Your task to perform on an android device: turn notification dots on Image 0: 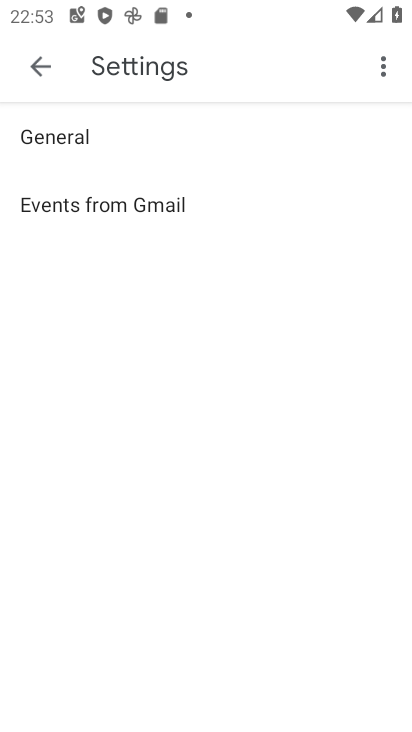
Step 0: click (221, 402)
Your task to perform on an android device: turn notification dots on Image 1: 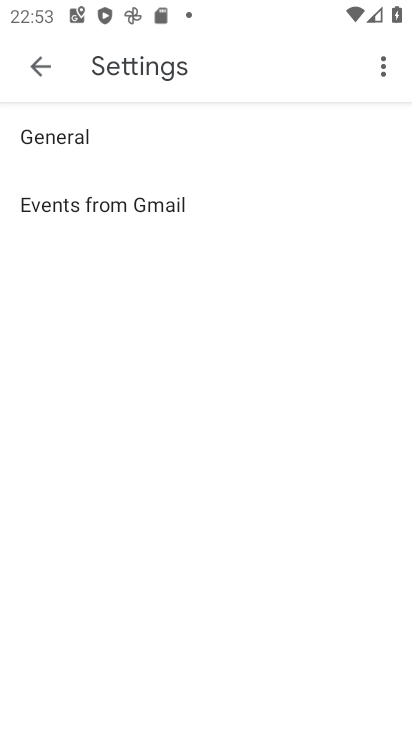
Step 1: press home button
Your task to perform on an android device: turn notification dots on Image 2: 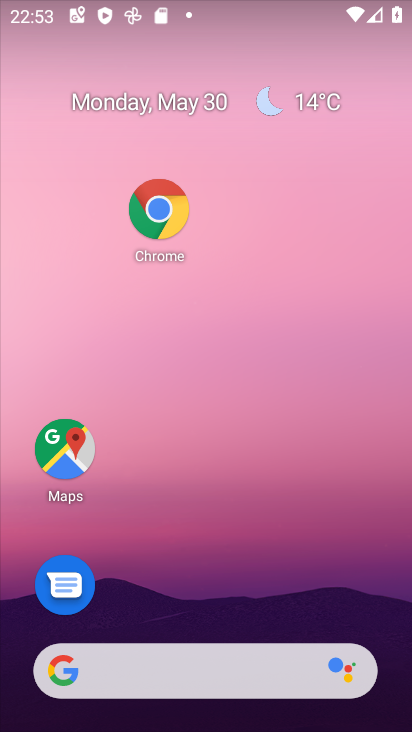
Step 2: drag from (228, 581) to (233, 40)
Your task to perform on an android device: turn notification dots on Image 3: 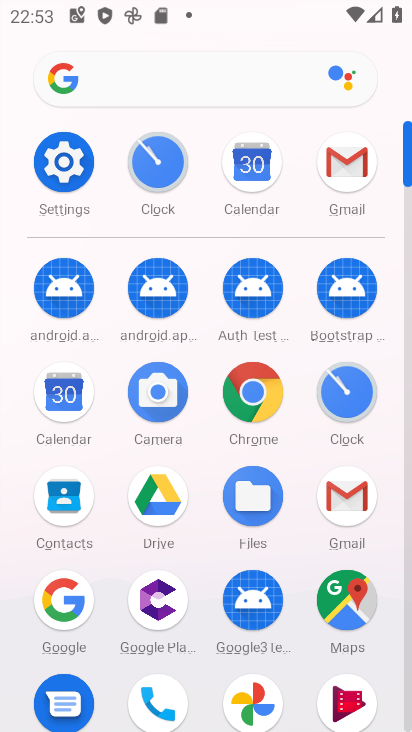
Step 3: click (48, 153)
Your task to perform on an android device: turn notification dots on Image 4: 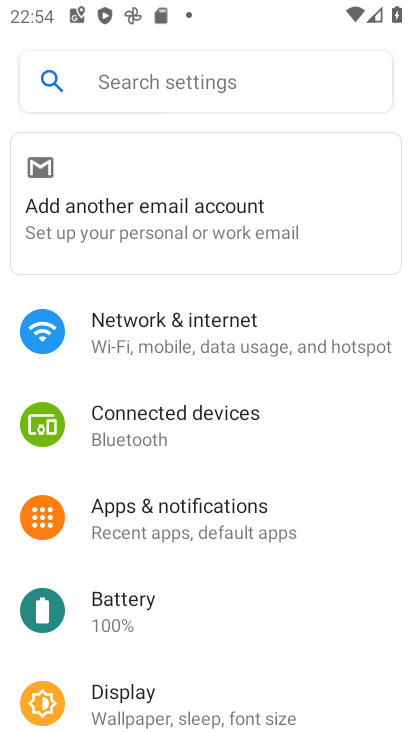
Step 4: click (189, 527)
Your task to perform on an android device: turn notification dots on Image 5: 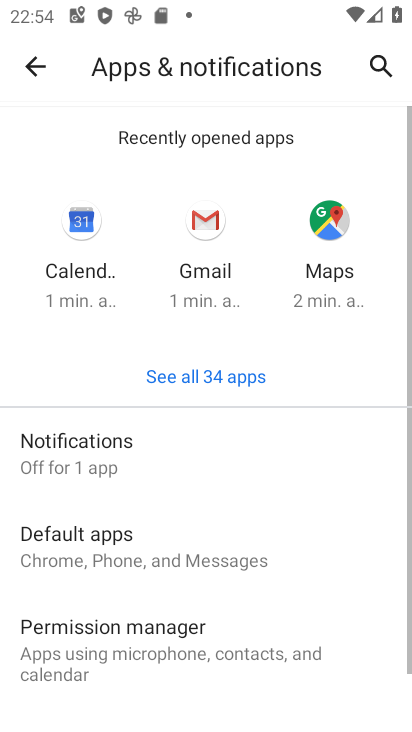
Step 5: drag from (161, 486) to (201, 72)
Your task to perform on an android device: turn notification dots on Image 6: 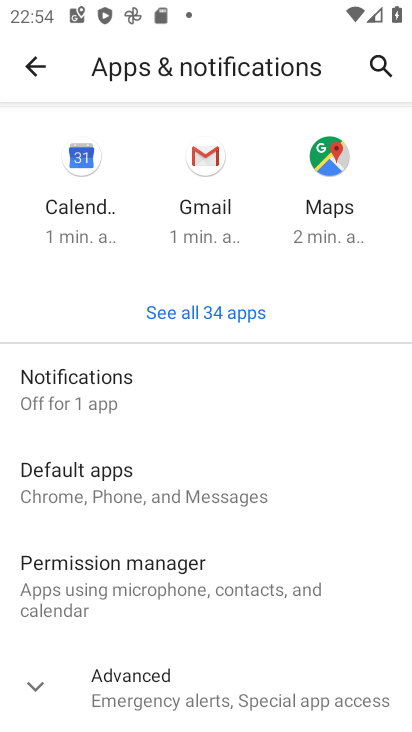
Step 6: click (146, 397)
Your task to perform on an android device: turn notification dots on Image 7: 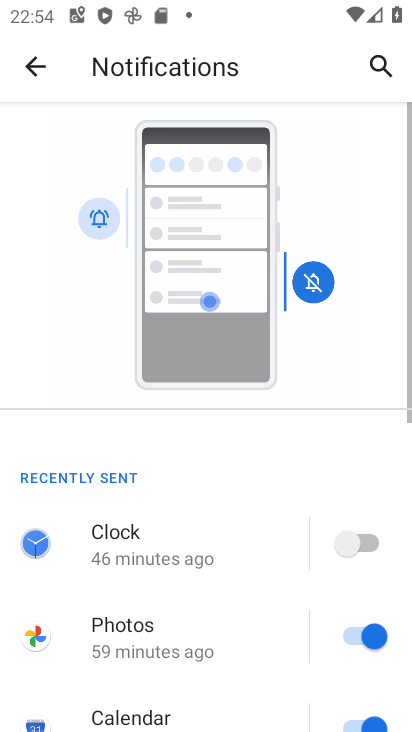
Step 7: drag from (212, 527) to (149, 9)
Your task to perform on an android device: turn notification dots on Image 8: 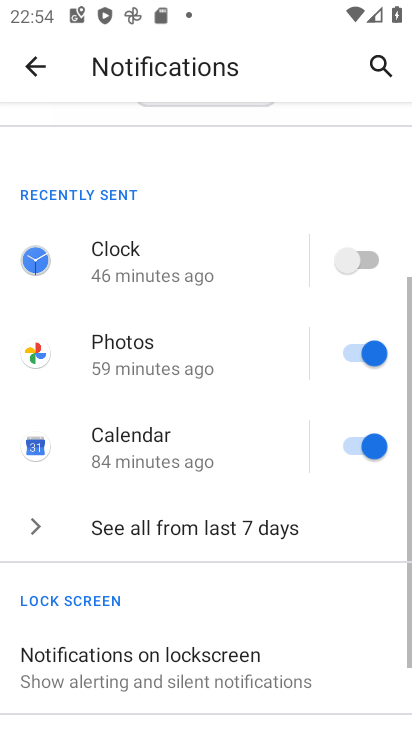
Step 8: drag from (85, 569) to (136, 84)
Your task to perform on an android device: turn notification dots on Image 9: 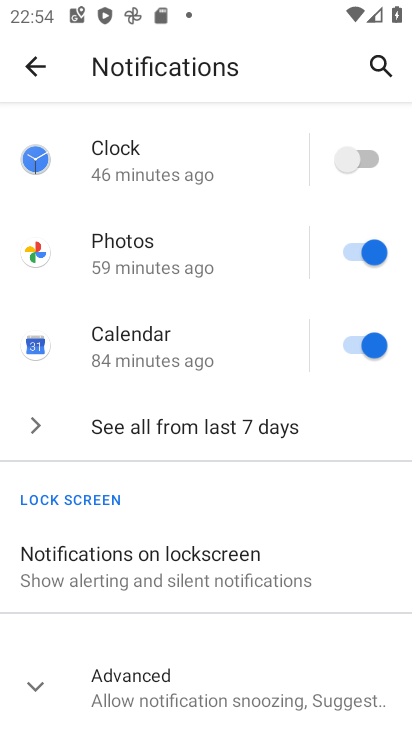
Step 9: click (157, 689)
Your task to perform on an android device: turn notification dots on Image 10: 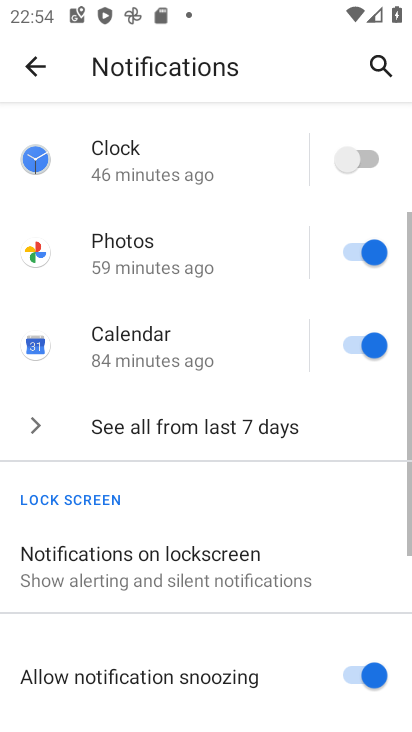
Step 10: task complete